Your task to perform on an android device: turn on the 12-hour format for clock Image 0: 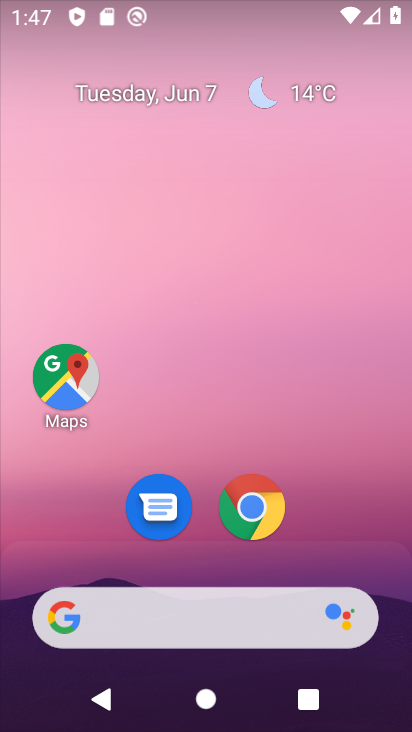
Step 0: drag from (352, 503) to (333, 106)
Your task to perform on an android device: turn on the 12-hour format for clock Image 1: 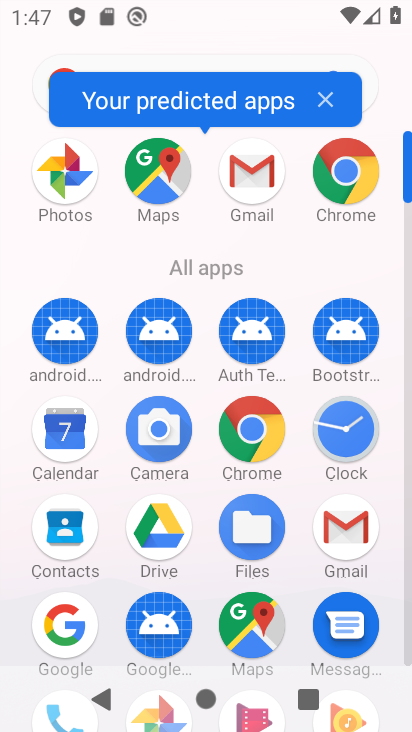
Step 1: click (342, 419)
Your task to perform on an android device: turn on the 12-hour format for clock Image 2: 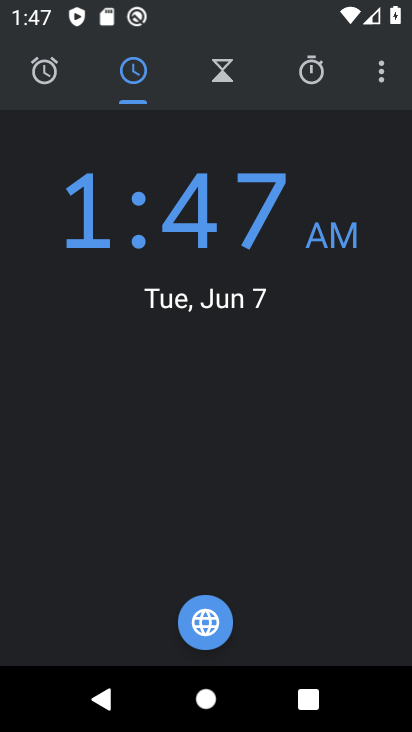
Step 2: click (377, 77)
Your task to perform on an android device: turn on the 12-hour format for clock Image 3: 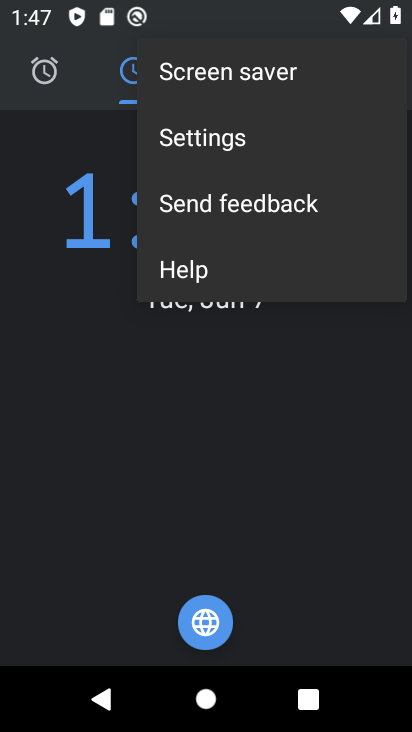
Step 3: drag from (223, 277) to (244, 145)
Your task to perform on an android device: turn on the 12-hour format for clock Image 4: 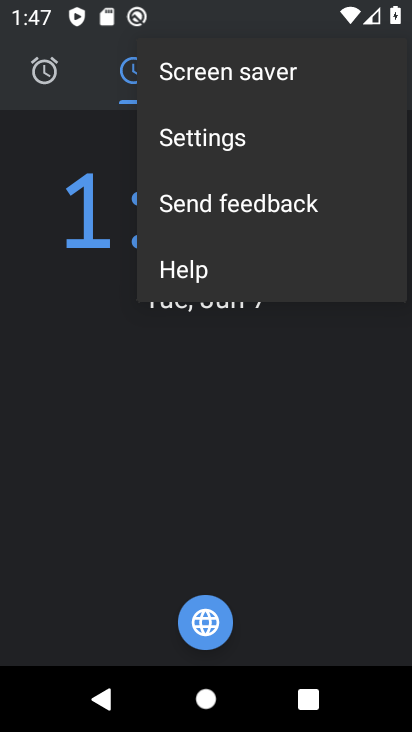
Step 4: click (230, 129)
Your task to perform on an android device: turn on the 12-hour format for clock Image 5: 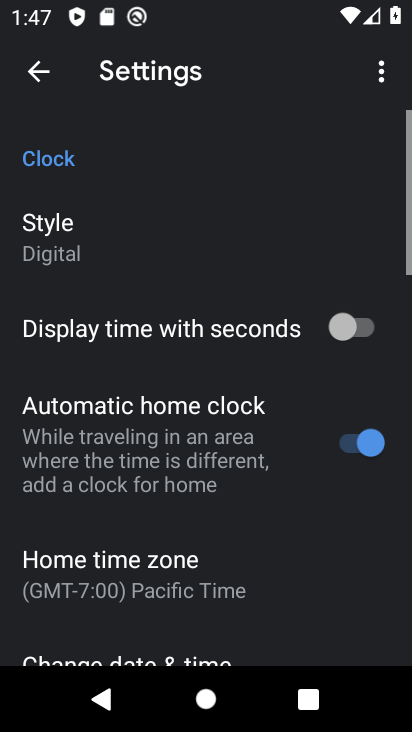
Step 5: drag from (333, 606) to (317, 131)
Your task to perform on an android device: turn on the 12-hour format for clock Image 6: 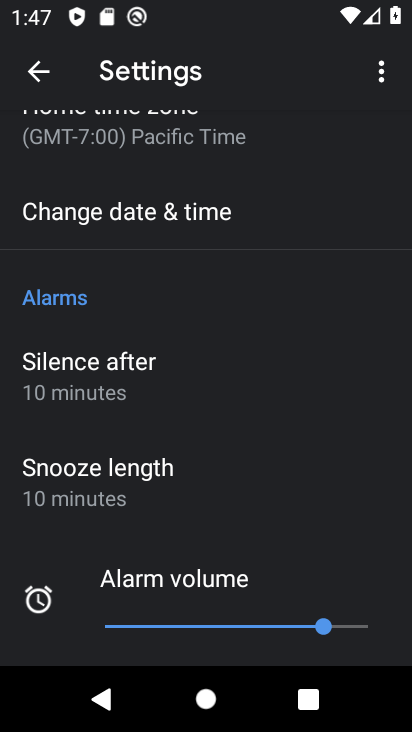
Step 6: click (205, 233)
Your task to perform on an android device: turn on the 12-hour format for clock Image 7: 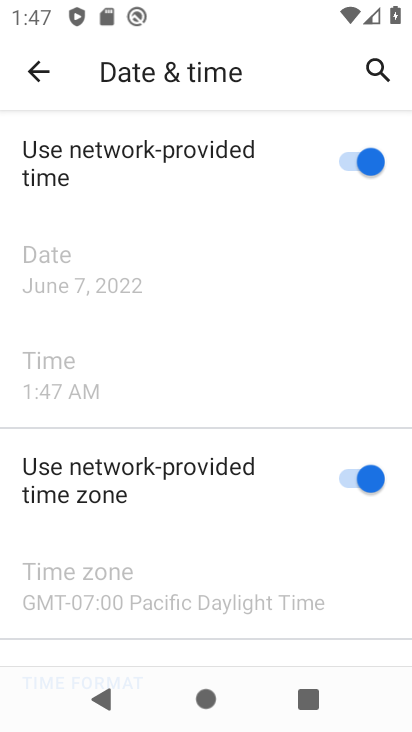
Step 7: task complete